Your task to perform on an android device: Clear the cart on target.com. Search for "usb-a to usb-b" on target.com, select the first entry, add it to the cart, then select checkout. Image 0: 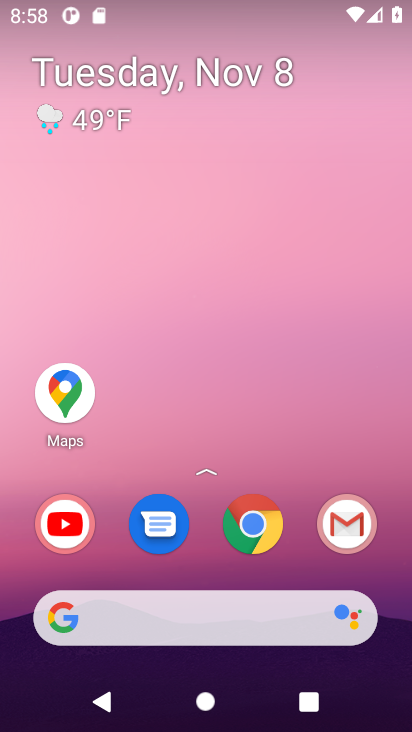
Step 0: click (260, 520)
Your task to perform on an android device: Clear the cart on target.com. Search for "usb-a to usb-b" on target.com, select the first entry, add it to the cart, then select checkout. Image 1: 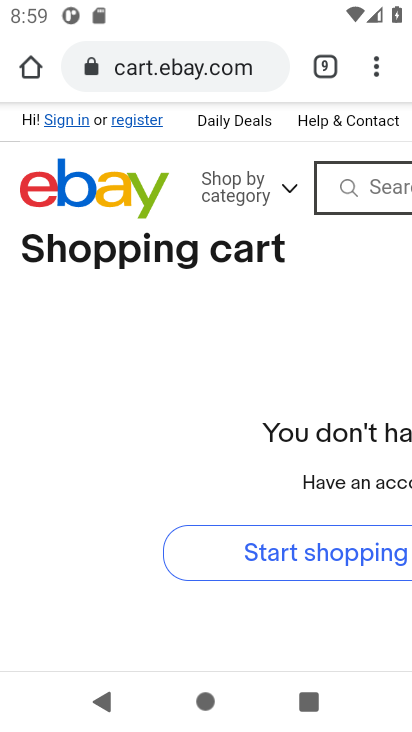
Step 1: click (186, 70)
Your task to perform on an android device: Clear the cart on target.com. Search for "usb-a to usb-b" on target.com, select the first entry, add it to the cart, then select checkout. Image 2: 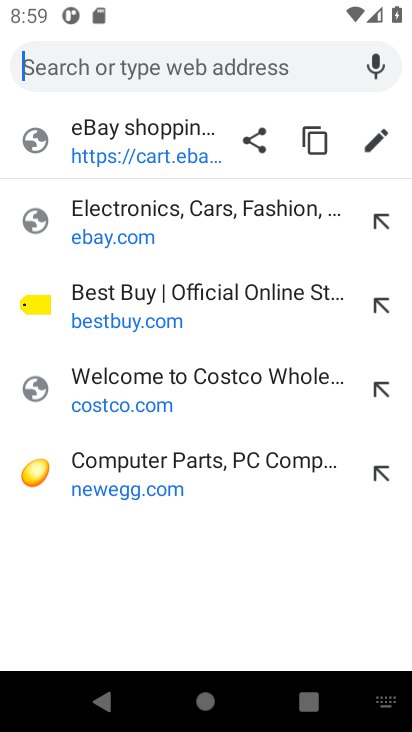
Step 2: type "target.com"
Your task to perform on an android device: Clear the cart on target.com. Search for "usb-a to usb-b" on target.com, select the first entry, add it to the cart, then select checkout. Image 3: 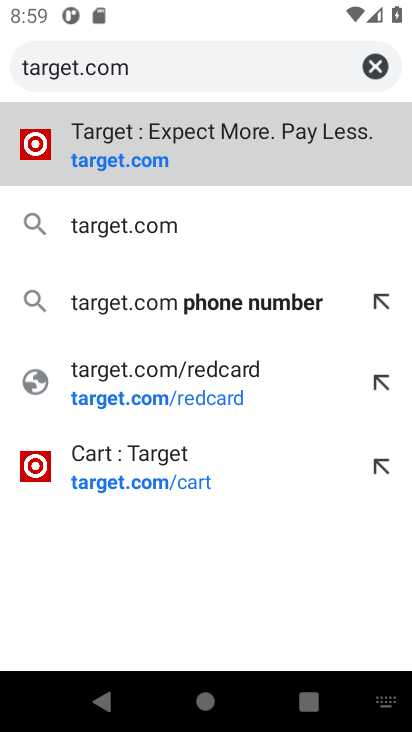
Step 3: click (96, 167)
Your task to perform on an android device: Clear the cart on target.com. Search for "usb-a to usb-b" on target.com, select the first entry, add it to the cart, then select checkout. Image 4: 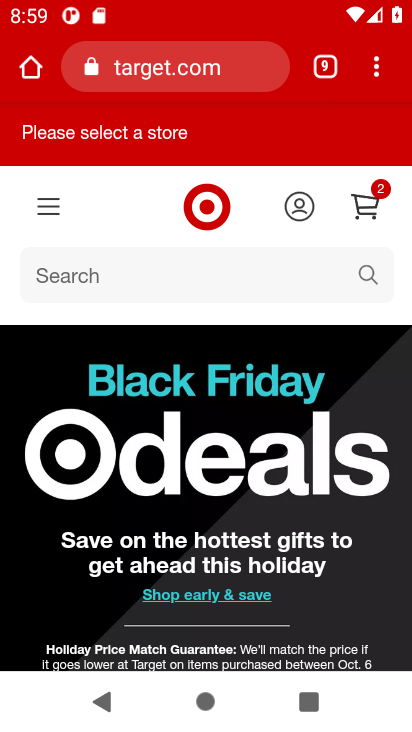
Step 4: click (360, 205)
Your task to perform on an android device: Clear the cart on target.com. Search for "usb-a to usb-b" on target.com, select the first entry, add it to the cart, then select checkout. Image 5: 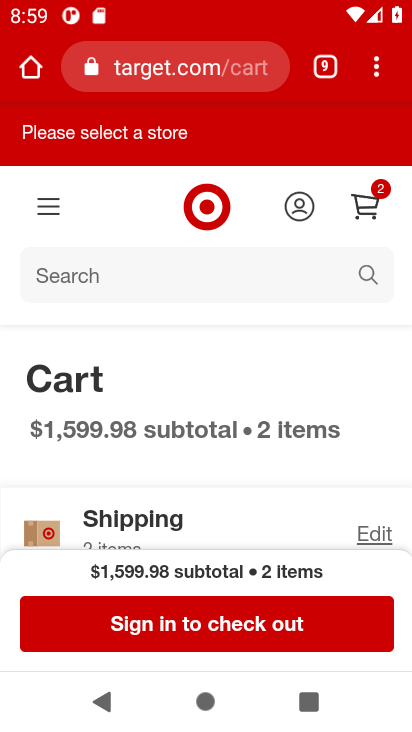
Step 5: drag from (213, 526) to (213, 292)
Your task to perform on an android device: Clear the cart on target.com. Search for "usb-a to usb-b" on target.com, select the first entry, add it to the cart, then select checkout. Image 6: 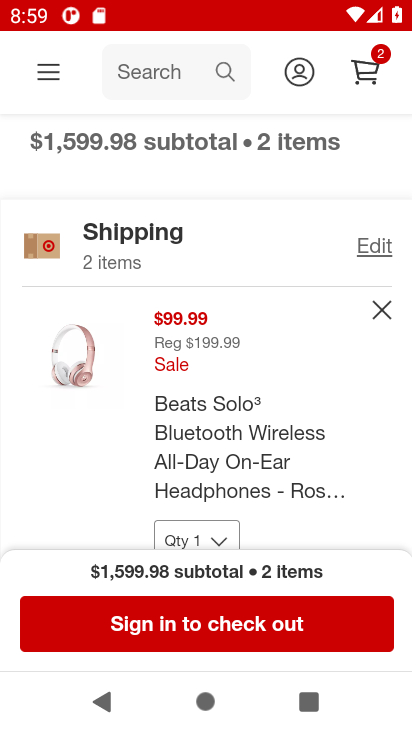
Step 6: click (386, 314)
Your task to perform on an android device: Clear the cart on target.com. Search for "usb-a to usb-b" on target.com, select the first entry, add it to the cart, then select checkout. Image 7: 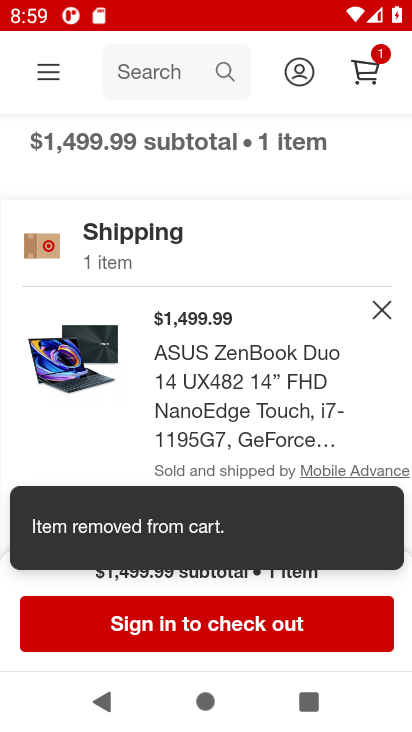
Step 7: click (386, 314)
Your task to perform on an android device: Clear the cart on target.com. Search for "usb-a to usb-b" on target.com, select the first entry, add it to the cart, then select checkout. Image 8: 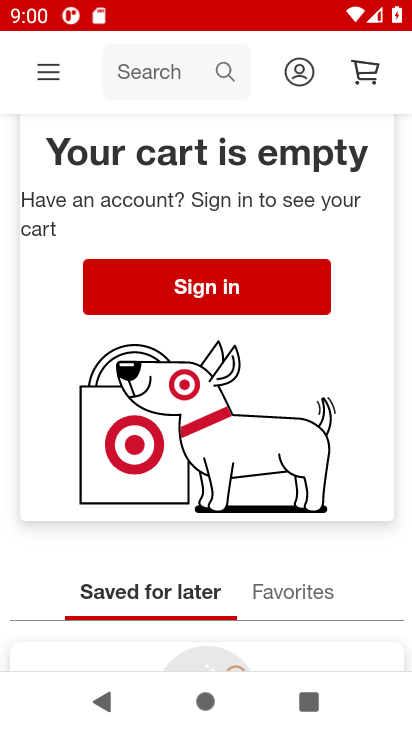
Step 8: click (223, 75)
Your task to perform on an android device: Clear the cart on target.com. Search for "usb-a to usb-b" on target.com, select the first entry, add it to the cart, then select checkout. Image 9: 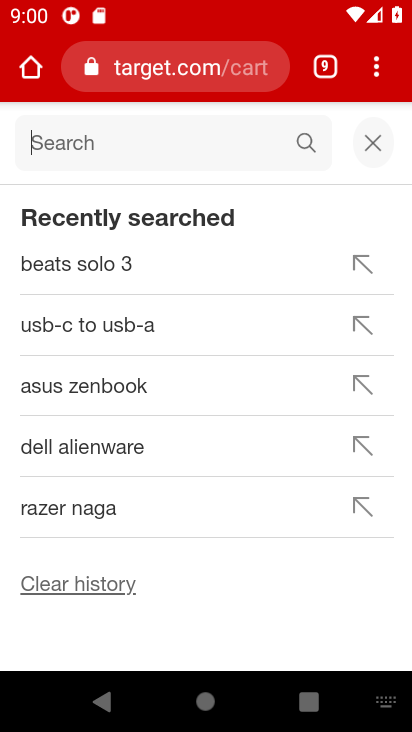
Step 9: type "usb-a to usb-b"
Your task to perform on an android device: Clear the cart on target.com. Search for "usb-a to usb-b" on target.com, select the first entry, add it to the cart, then select checkout. Image 10: 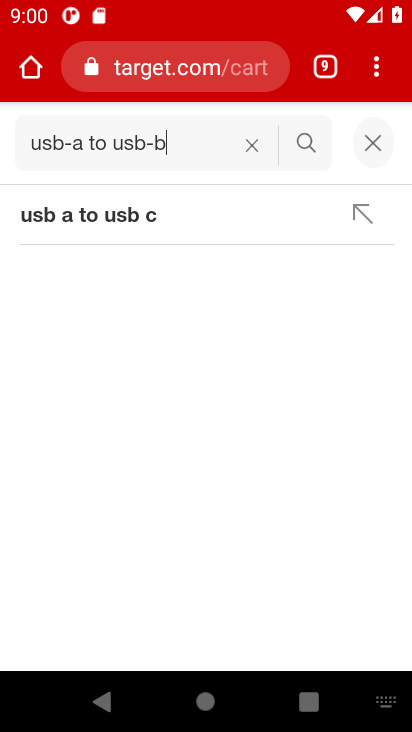
Step 10: click (310, 150)
Your task to perform on an android device: Clear the cart on target.com. Search for "usb-a to usb-b" on target.com, select the first entry, add it to the cart, then select checkout. Image 11: 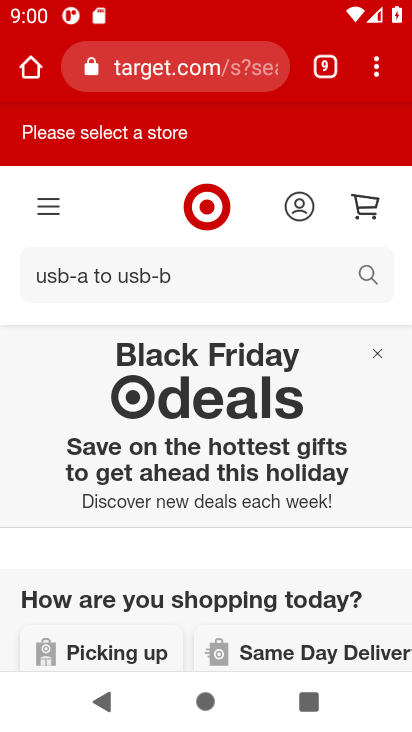
Step 11: drag from (206, 444) to (145, 133)
Your task to perform on an android device: Clear the cart on target.com. Search for "usb-a to usb-b" on target.com, select the first entry, add it to the cart, then select checkout. Image 12: 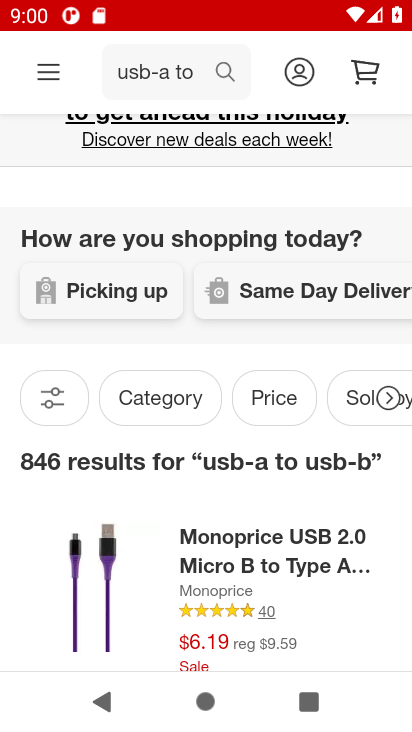
Step 12: drag from (187, 472) to (159, 301)
Your task to perform on an android device: Clear the cart on target.com. Search for "usb-a to usb-b" on target.com, select the first entry, add it to the cart, then select checkout. Image 13: 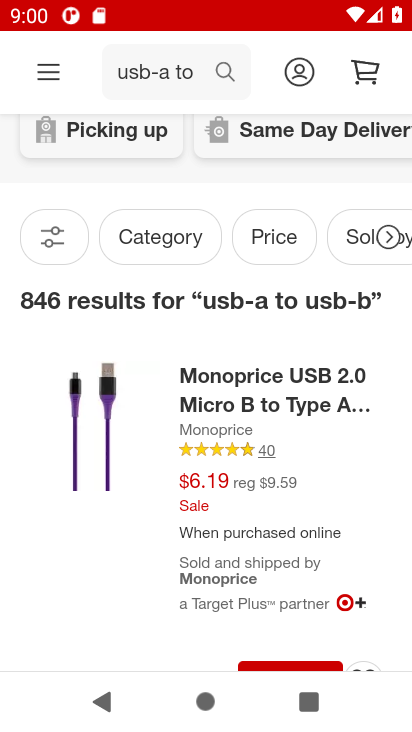
Step 13: drag from (154, 495) to (151, 358)
Your task to perform on an android device: Clear the cart on target.com. Search for "usb-a to usb-b" on target.com, select the first entry, add it to the cart, then select checkout. Image 14: 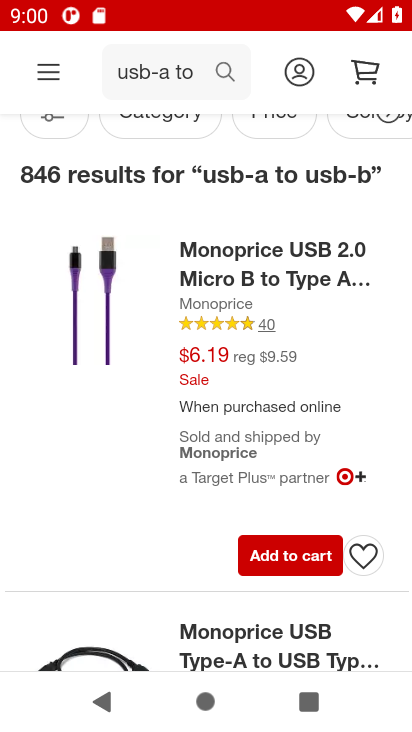
Step 14: click (310, 569)
Your task to perform on an android device: Clear the cart on target.com. Search for "usb-a to usb-b" on target.com, select the first entry, add it to the cart, then select checkout. Image 15: 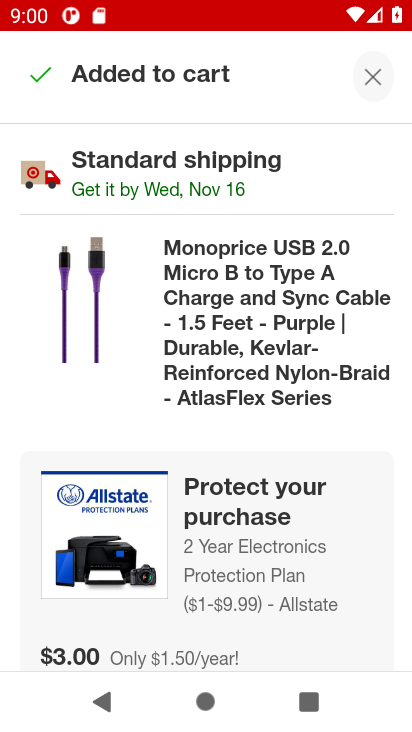
Step 15: drag from (228, 531) to (215, 446)
Your task to perform on an android device: Clear the cart on target.com. Search for "usb-a to usb-b" on target.com, select the first entry, add it to the cart, then select checkout. Image 16: 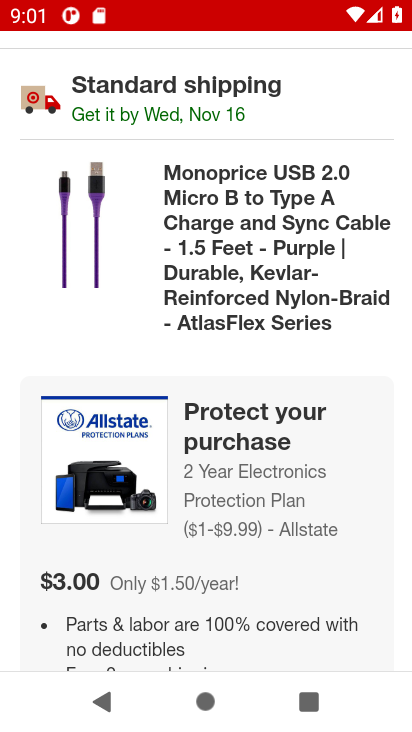
Step 16: drag from (222, 511) to (192, 221)
Your task to perform on an android device: Clear the cart on target.com. Search for "usb-a to usb-b" on target.com, select the first entry, add it to the cart, then select checkout. Image 17: 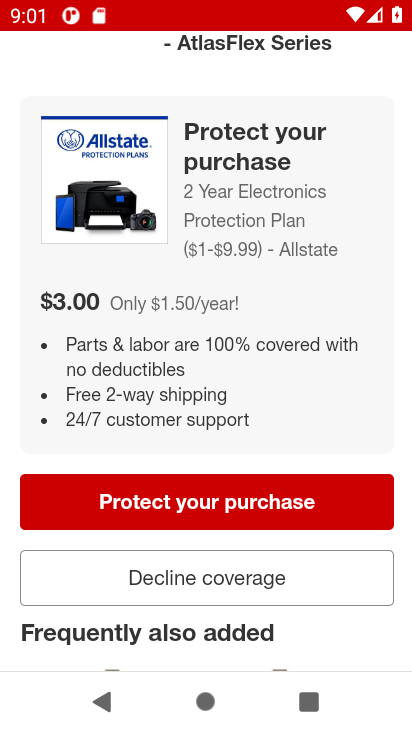
Step 17: drag from (326, 242) to (304, 725)
Your task to perform on an android device: Clear the cart on target.com. Search for "usb-a to usb-b" on target.com, select the first entry, add it to the cart, then select checkout. Image 18: 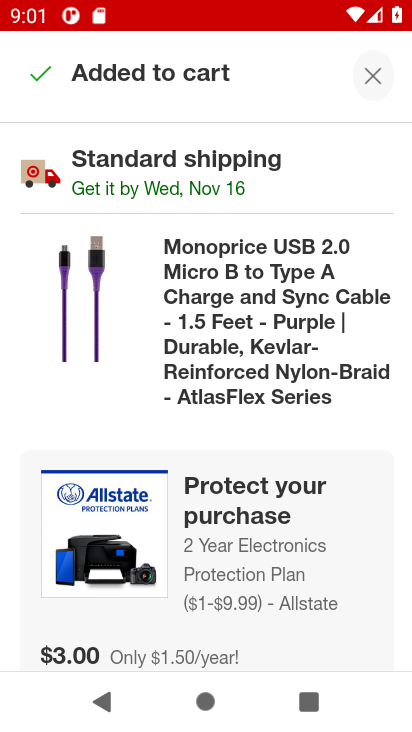
Step 18: click (366, 86)
Your task to perform on an android device: Clear the cart on target.com. Search for "usb-a to usb-b" on target.com, select the first entry, add it to the cart, then select checkout. Image 19: 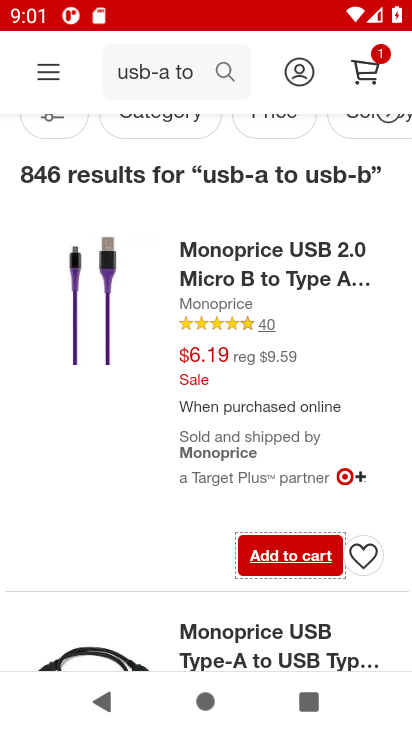
Step 19: click (373, 65)
Your task to perform on an android device: Clear the cart on target.com. Search for "usb-a to usb-b" on target.com, select the first entry, add it to the cart, then select checkout. Image 20: 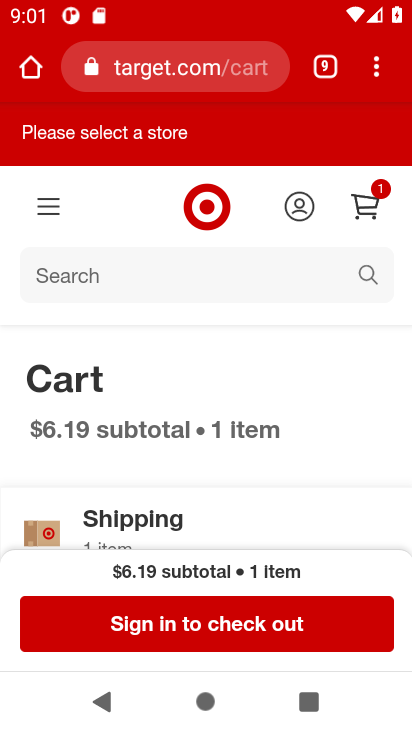
Step 20: drag from (293, 562) to (259, 261)
Your task to perform on an android device: Clear the cart on target.com. Search for "usb-a to usb-b" on target.com, select the first entry, add it to the cart, then select checkout. Image 21: 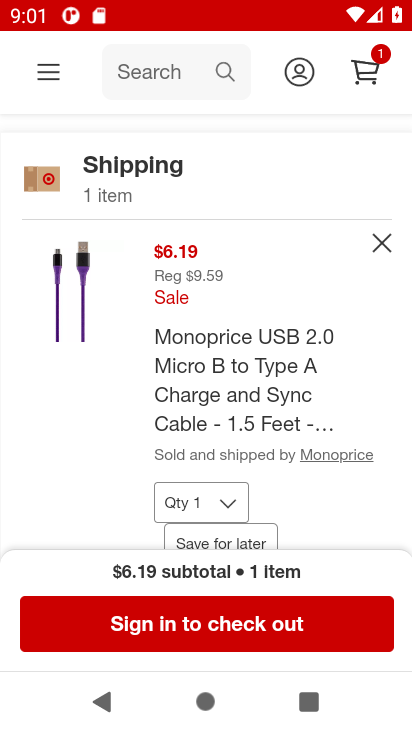
Step 21: click (274, 618)
Your task to perform on an android device: Clear the cart on target.com. Search for "usb-a to usb-b" on target.com, select the first entry, add it to the cart, then select checkout. Image 22: 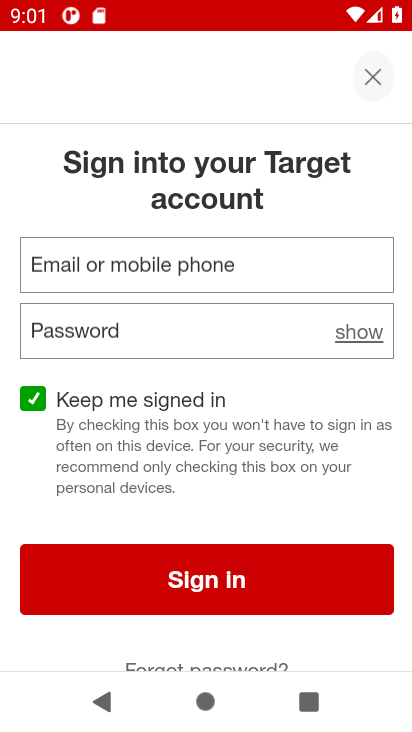
Step 22: task complete